Your task to perform on an android device: change timer sound Image 0: 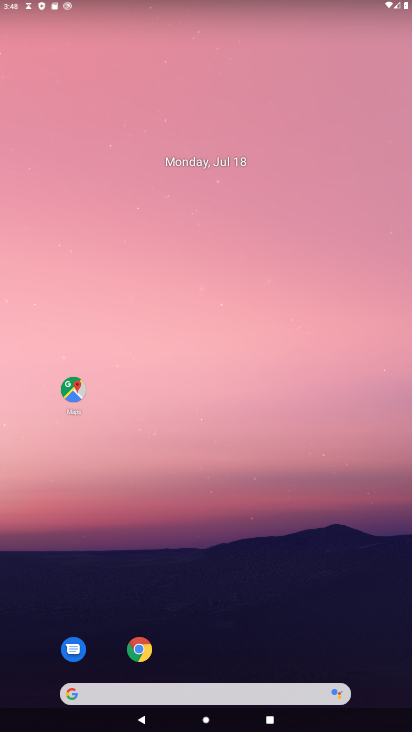
Step 0: press home button
Your task to perform on an android device: change timer sound Image 1: 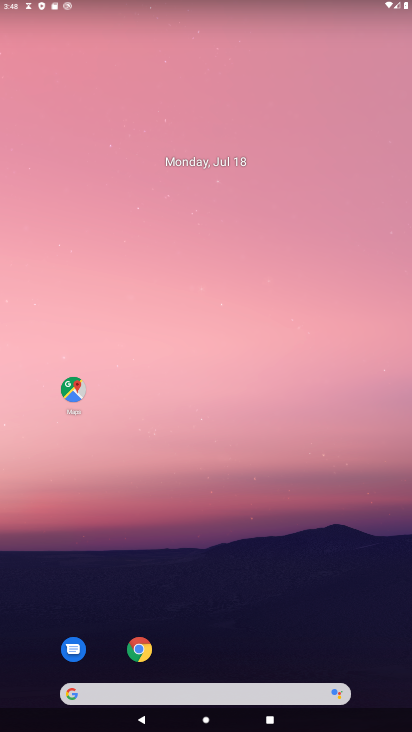
Step 1: drag from (278, 622) to (199, 164)
Your task to perform on an android device: change timer sound Image 2: 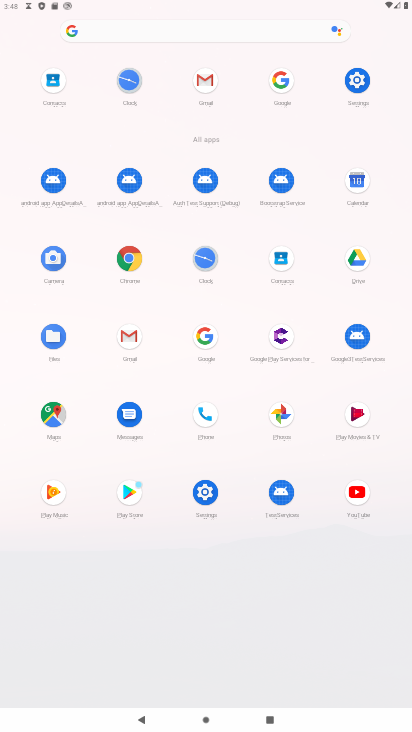
Step 2: click (203, 266)
Your task to perform on an android device: change timer sound Image 3: 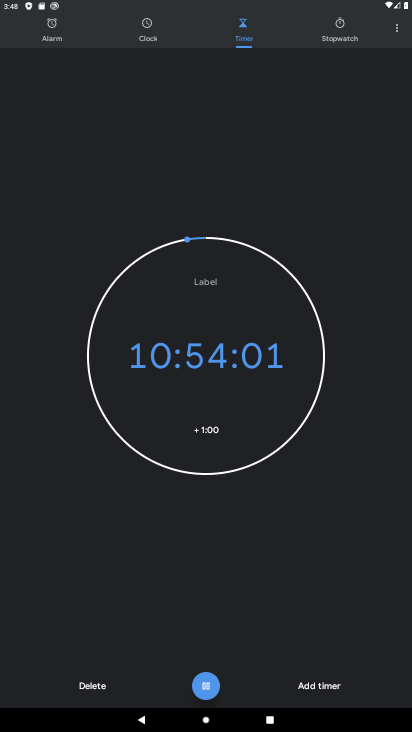
Step 3: click (399, 33)
Your task to perform on an android device: change timer sound Image 4: 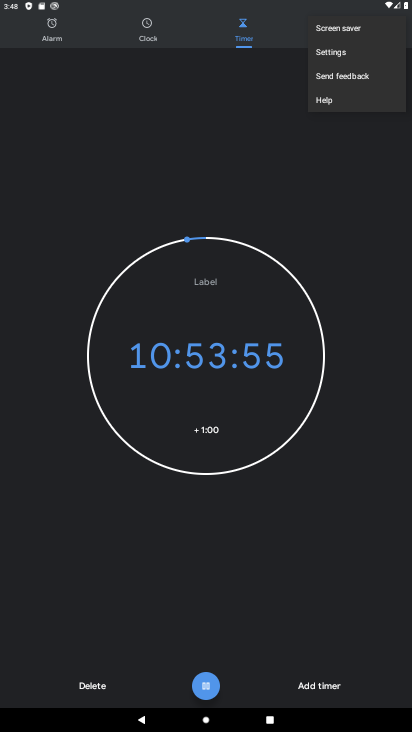
Step 4: click (340, 55)
Your task to perform on an android device: change timer sound Image 5: 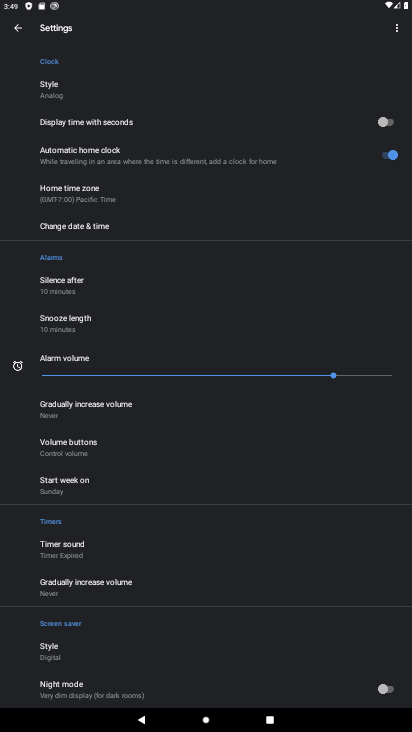
Step 5: click (63, 548)
Your task to perform on an android device: change timer sound Image 6: 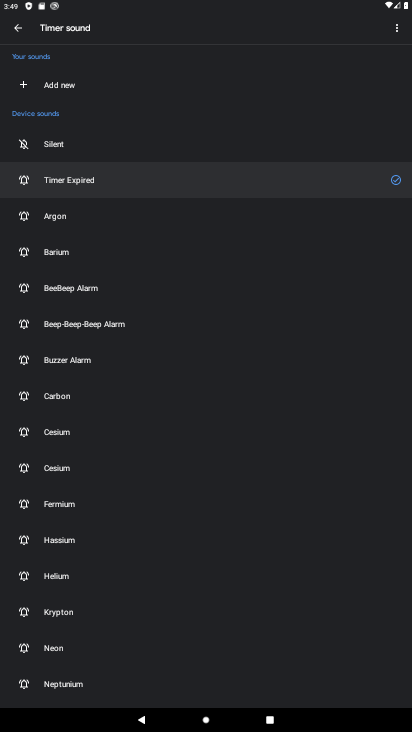
Step 6: click (43, 353)
Your task to perform on an android device: change timer sound Image 7: 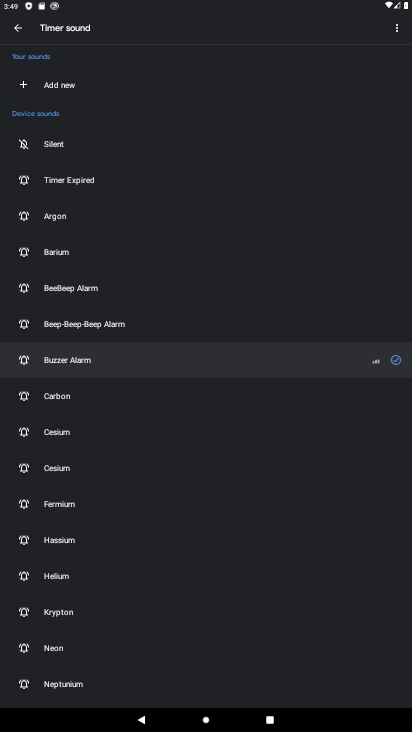
Step 7: task complete